Your task to perform on an android device: Show me the alarms in the clock app Image 0: 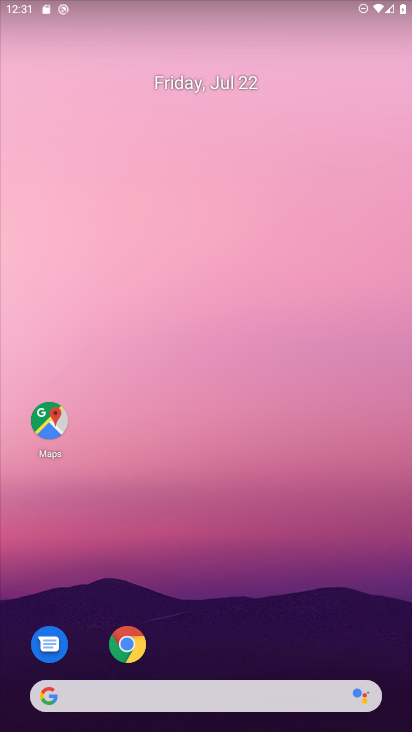
Step 0: press home button
Your task to perform on an android device: Show me the alarms in the clock app Image 1: 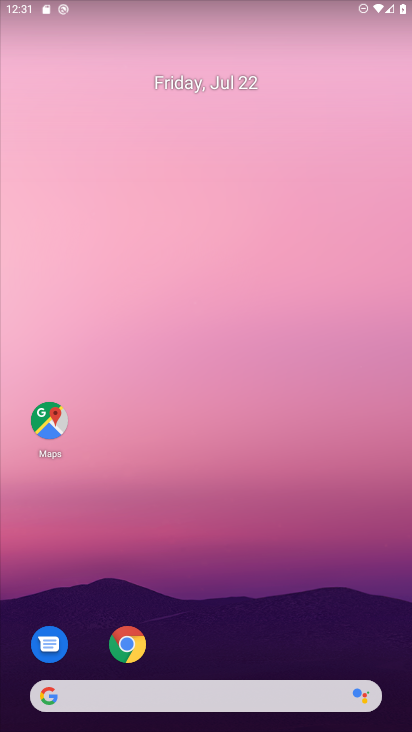
Step 1: drag from (209, 647) to (178, 455)
Your task to perform on an android device: Show me the alarms in the clock app Image 2: 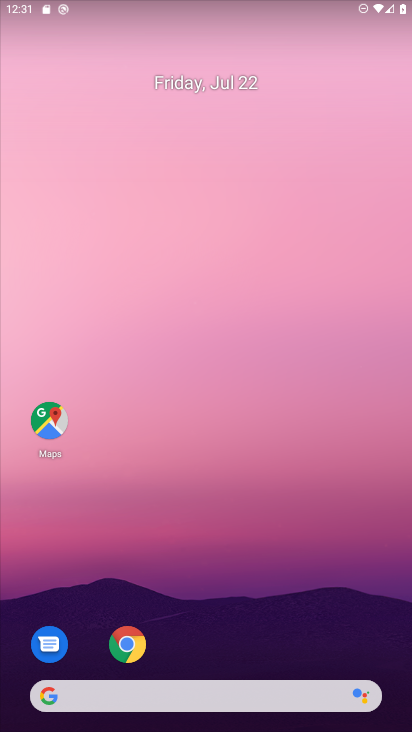
Step 2: drag from (187, 649) to (192, 336)
Your task to perform on an android device: Show me the alarms in the clock app Image 3: 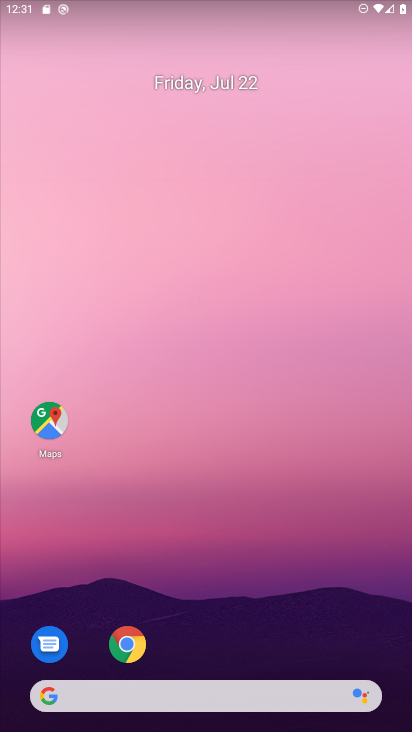
Step 3: drag from (259, 659) to (344, 94)
Your task to perform on an android device: Show me the alarms in the clock app Image 4: 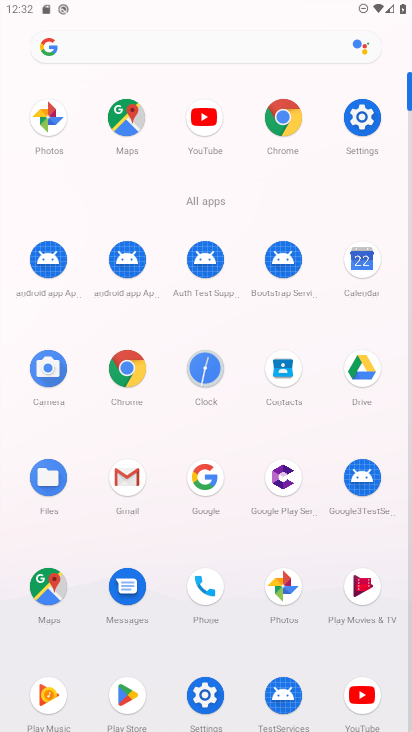
Step 4: click (209, 353)
Your task to perform on an android device: Show me the alarms in the clock app Image 5: 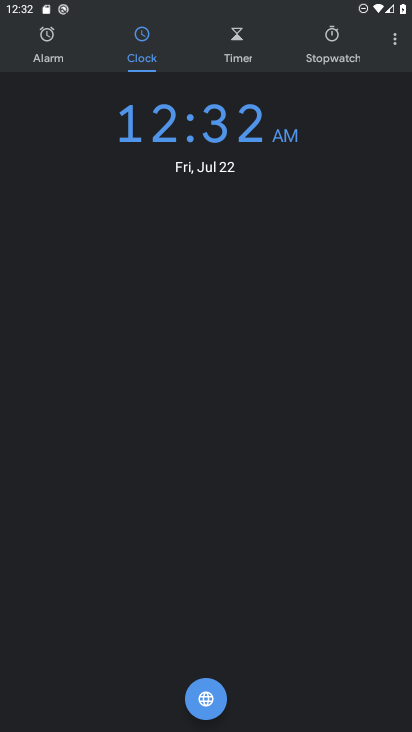
Step 5: click (60, 50)
Your task to perform on an android device: Show me the alarms in the clock app Image 6: 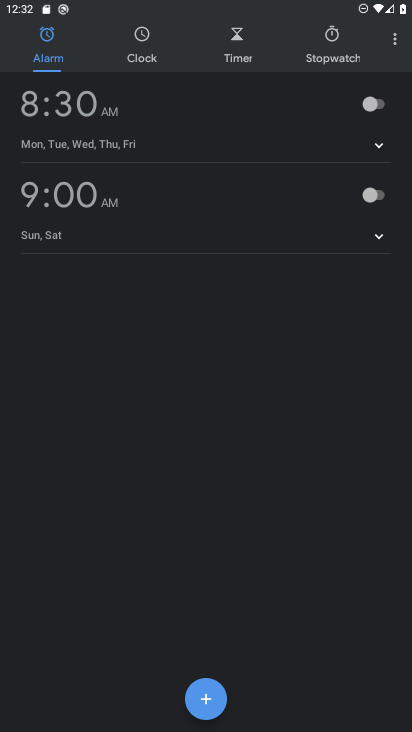
Step 6: task complete